Your task to perform on an android device: Go to Reddit.com Image 0: 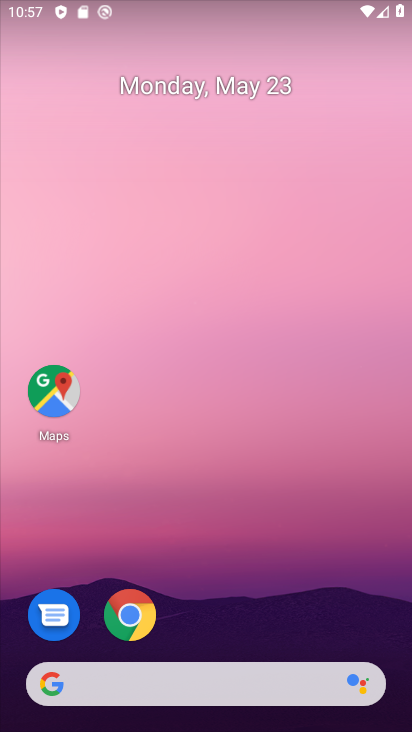
Step 0: click (106, 678)
Your task to perform on an android device: Go to Reddit.com Image 1: 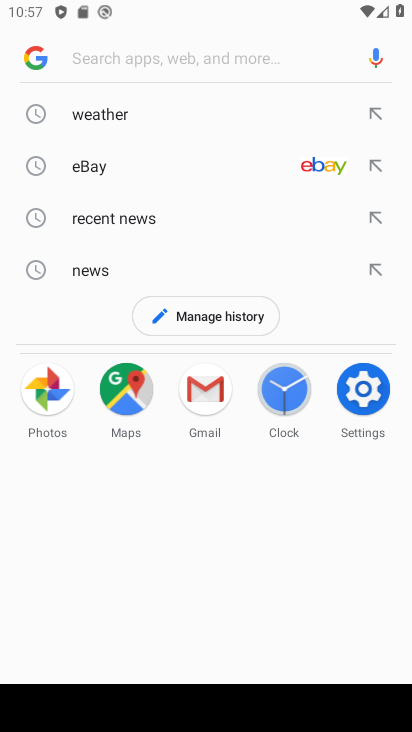
Step 1: type "reddit.com"
Your task to perform on an android device: Go to Reddit.com Image 2: 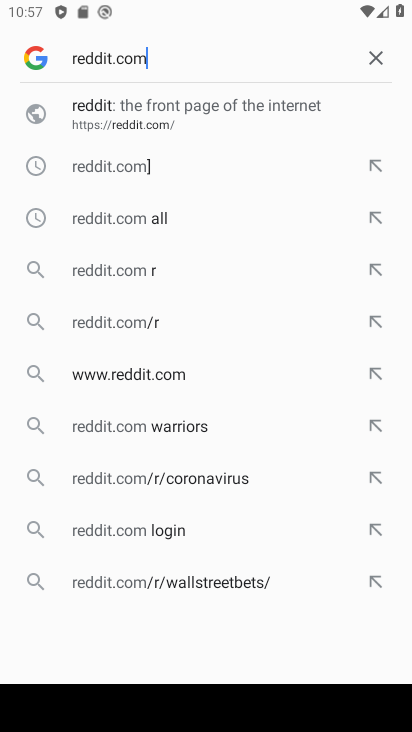
Step 2: click (138, 102)
Your task to perform on an android device: Go to Reddit.com Image 3: 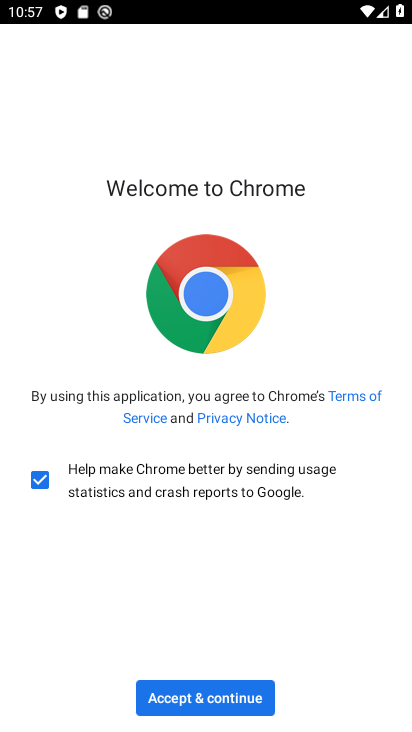
Step 3: click (174, 703)
Your task to perform on an android device: Go to Reddit.com Image 4: 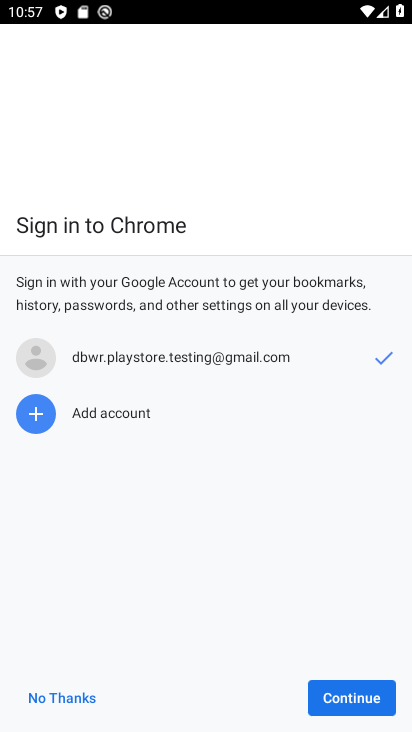
Step 4: click (174, 703)
Your task to perform on an android device: Go to Reddit.com Image 5: 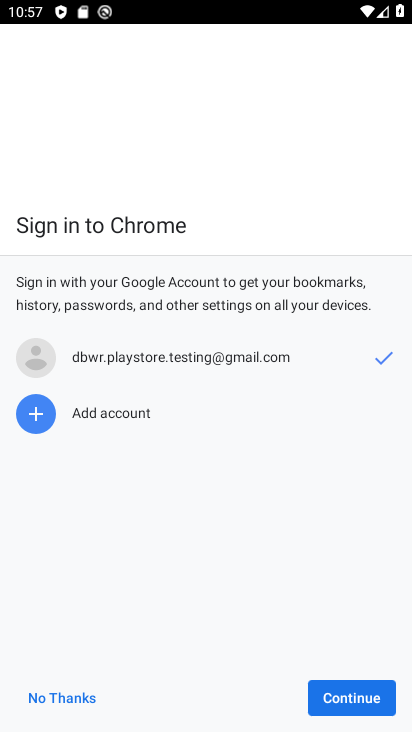
Step 5: click (385, 705)
Your task to perform on an android device: Go to Reddit.com Image 6: 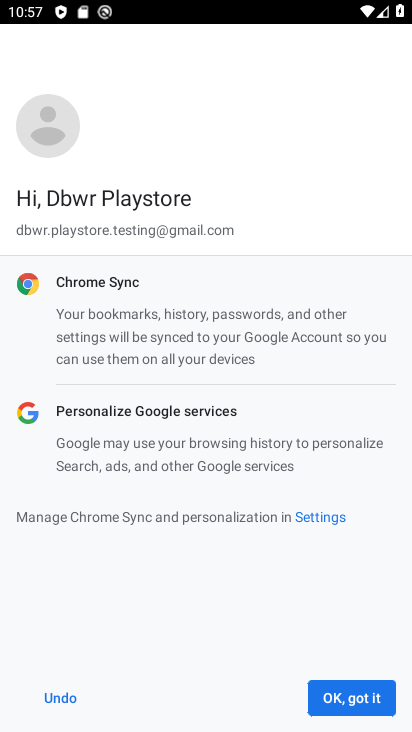
Step 6: click (385, 705)
Your task to perform on an android device: Go to Reddit.com Image 7: 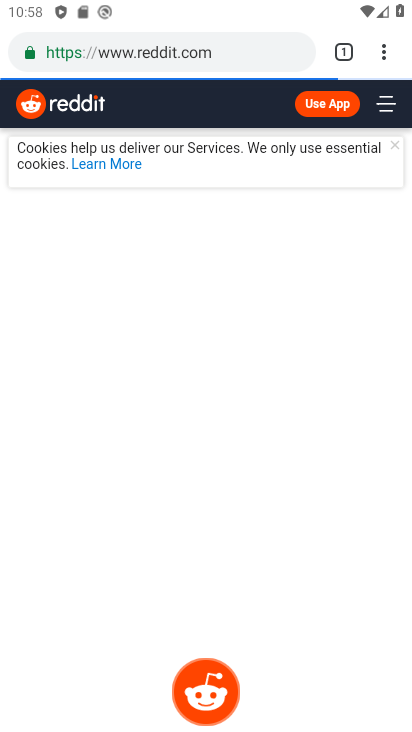
Step 7: task complete